Your task to perform on an android device: turn off notifications in google photos Image 0: 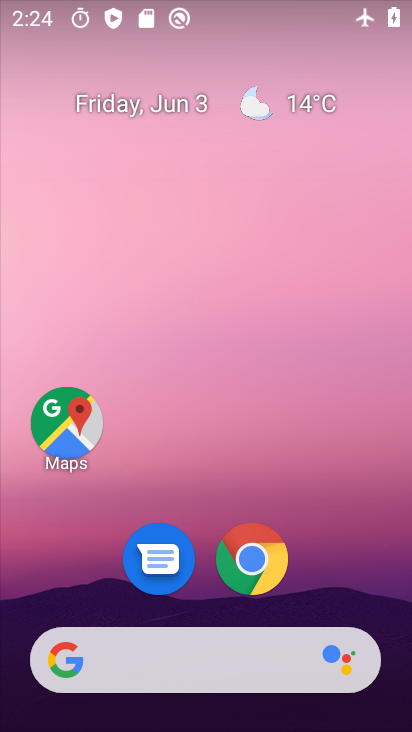
Step 0: drag from (212, 605) to (169, 84)
Your task to perform on an android device: turn off notifications in google photos Image 1: 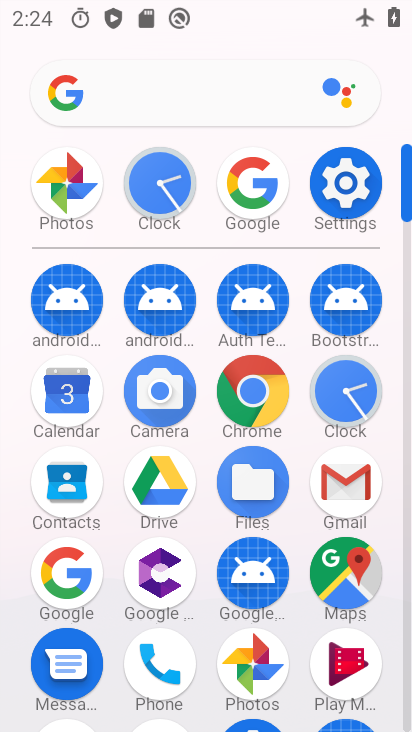
Step 1: click (358, 197)
Your task to perform on an android device: turn off notifications in google photos Image 2: 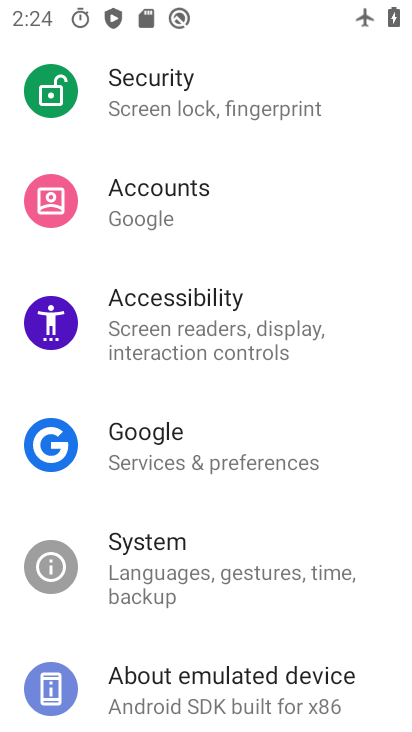
Step 2: drag from (198, 251) to (186, 666)
Your task to perform on an android device: turn off notifications in google photos Image 3: 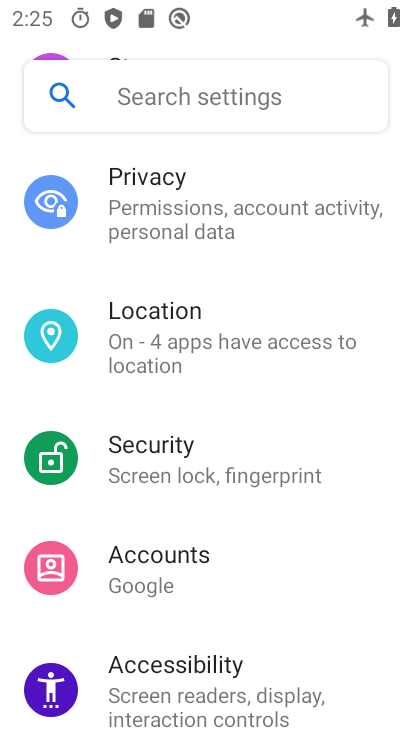
Step 3: drag from (199, 247) to (125, 717)
Your task to perform on an android device: turn off notifications in google photos Image 4: 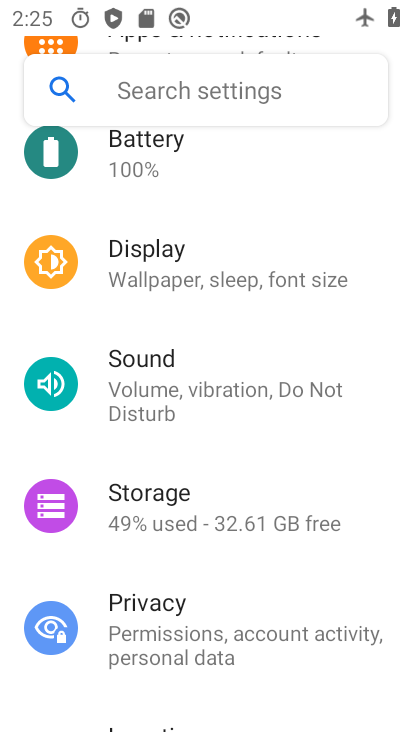
Step 4: drag from (153, 264) to (133, 730)
Your task to perform on an android device: turn off notifications in google photos Image 5: 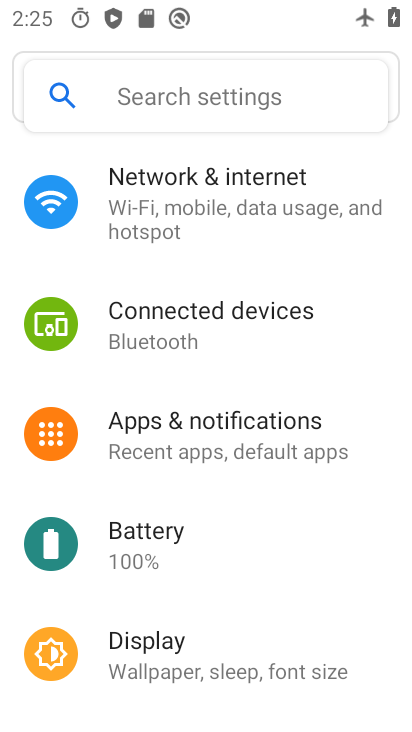
Step 5: click (173, 427)
Your task to perform on an android device: turn off notifications in google photos Image 6: 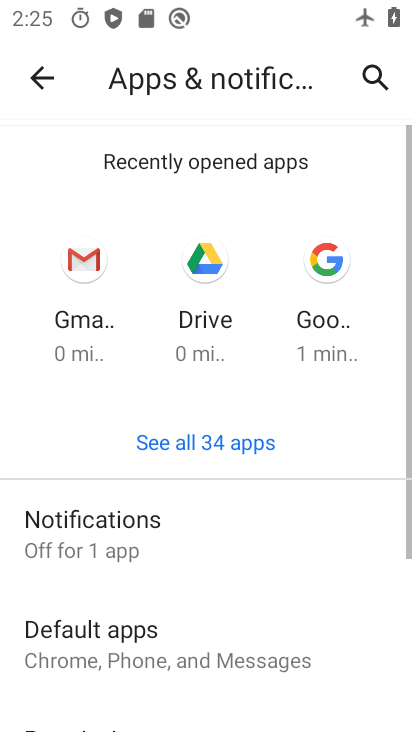
Step 6: click (112, 548)
Your task to perform on an android device: turn off notifications in google photos Image 7: 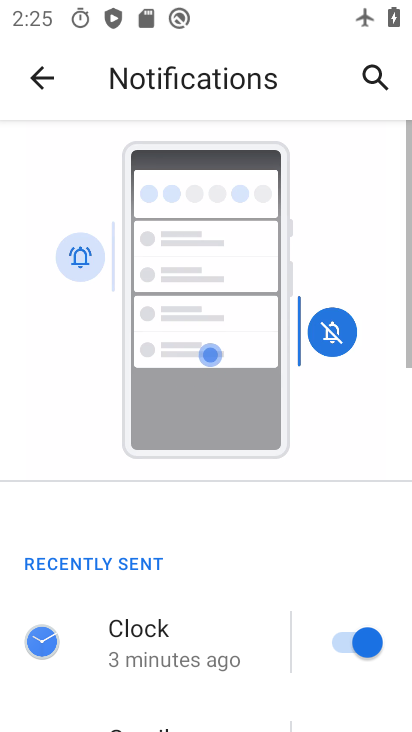
Step 7: drag from (265, 663) to (212, 129)
Your task to perform on an android device: turn off notifications in google photos Image 8: 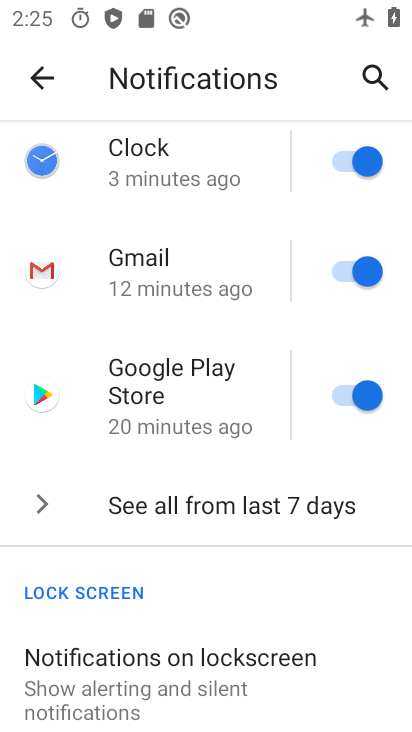
Step 8: drag from (263, 666) to (200, 242)
Your task to perform on an android device: turn off notifications in google photos Image 9: 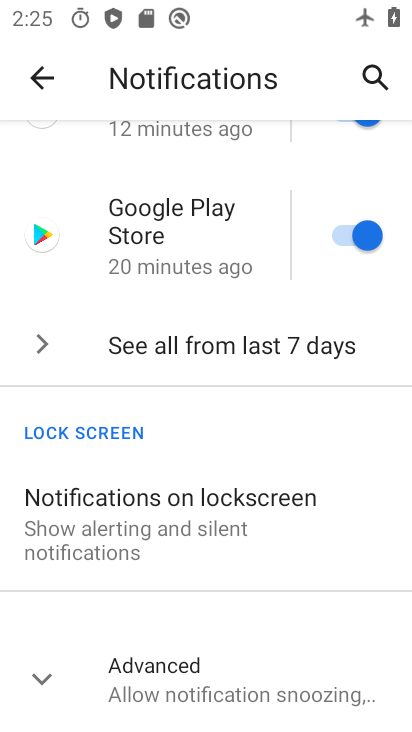
Step 9: click (158, 690)
Your task to perform on an android device: turn off notifications in google photos Image 10: 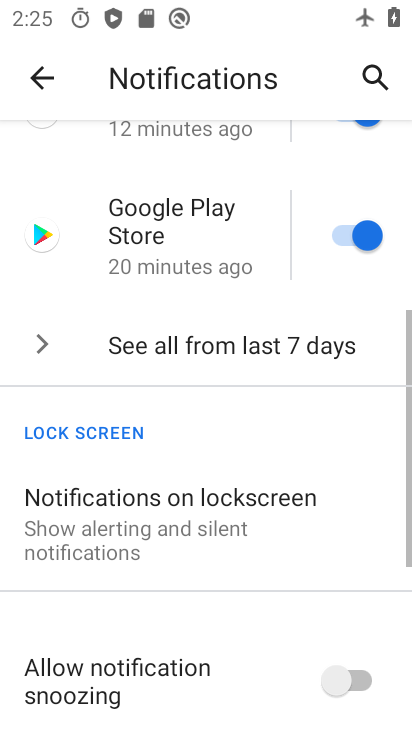
Step 10: task complete